Your task to perform on an android device: Open privacy settings Image 0: 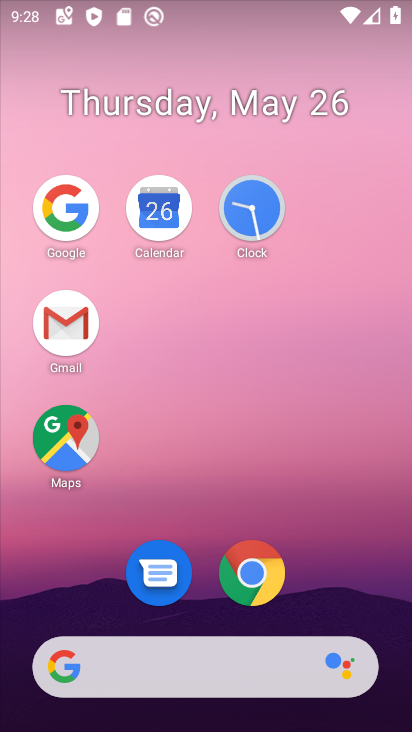
Step 0: drag from (70, 204) to (171, 339)
Your task to perform on an android device: Open privacy settings Image 1: 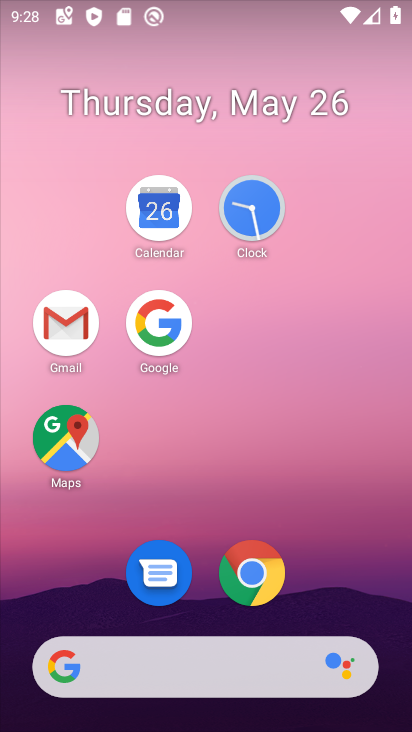
Step 1: drag from (333, 601) to (356, 156)
Your task to perform on an android device: Open privacy settings Image 2: 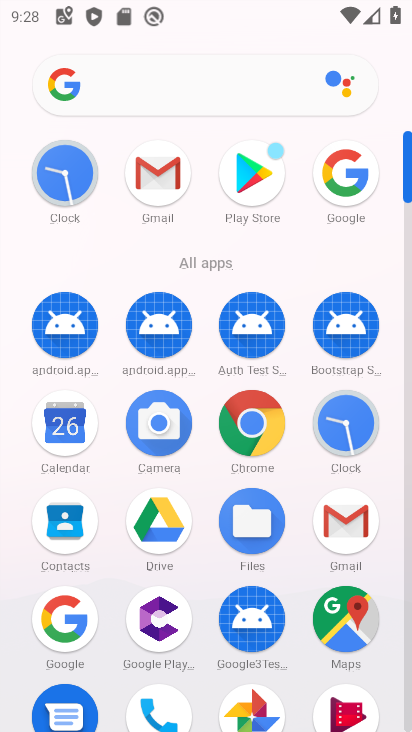
Step 2: drag from (167, 524) to (160, 106)
Your task to perform on an android device: Open privacy settings Image 3: 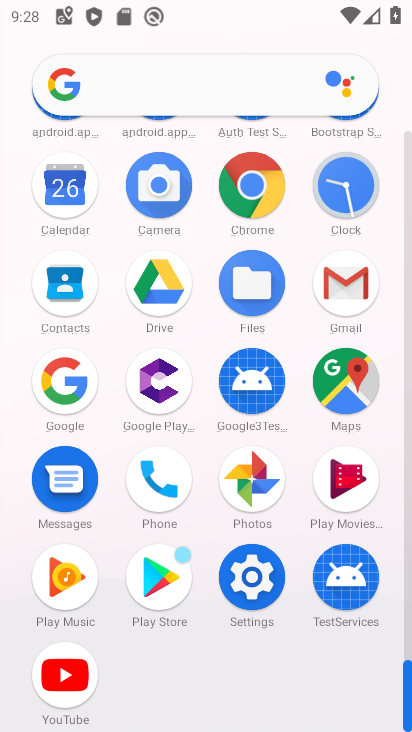
Step 3: drag from (257, 571) to (88, 215)
Your task to perform on an android device: Open privacy settings Image 4: 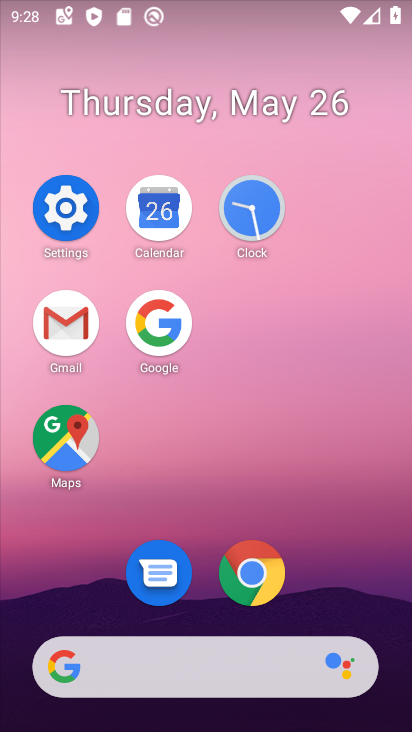
Step 4: click (85, 216)
Your task to perform on an android device: Open privacy settings Image 5: 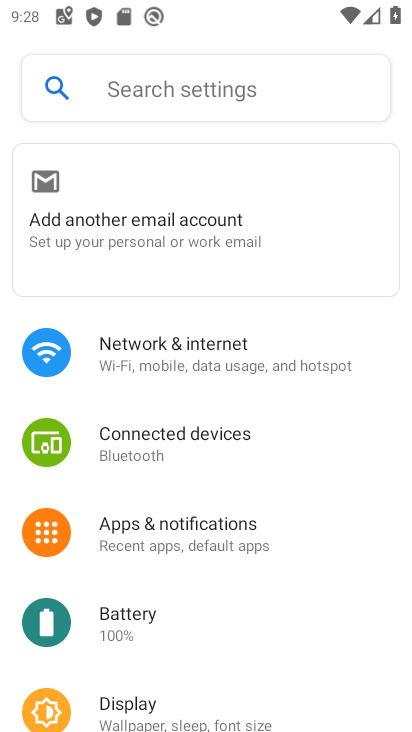
Step 5: drag from (266, 677) to (297, 275)
Your task to perform on an android device: Open privacy settings Image 6: 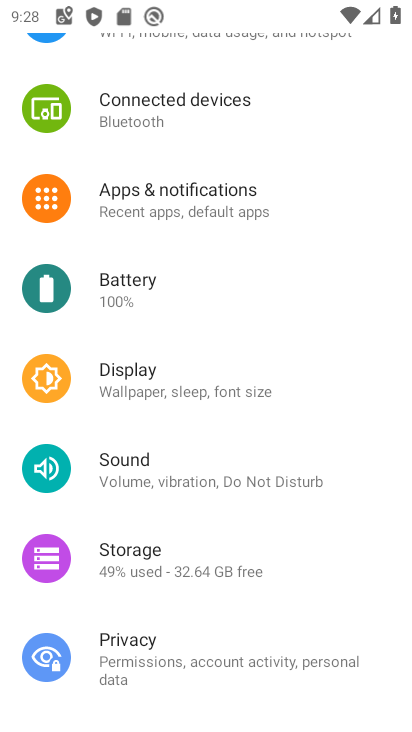
Step 6: click (200, 648)
Your task to perform on an android device: Open privacy settings Image 7: 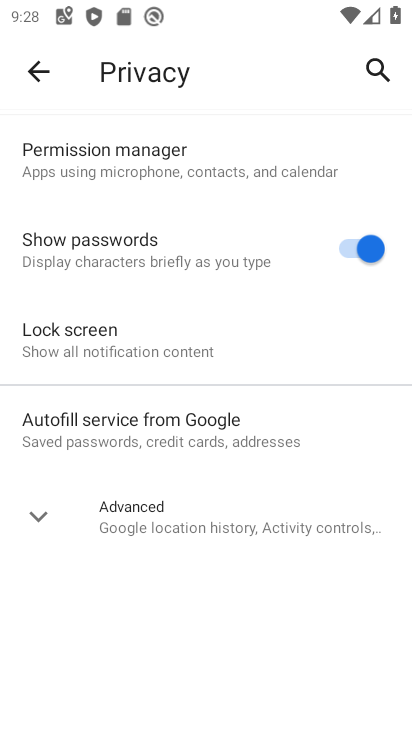
Step 7: task complete